Your task to perform on an android device: View the shopping cart on ebay. Add "panasonic triple a" to the cart on ebay, then select checkout. Image 0: 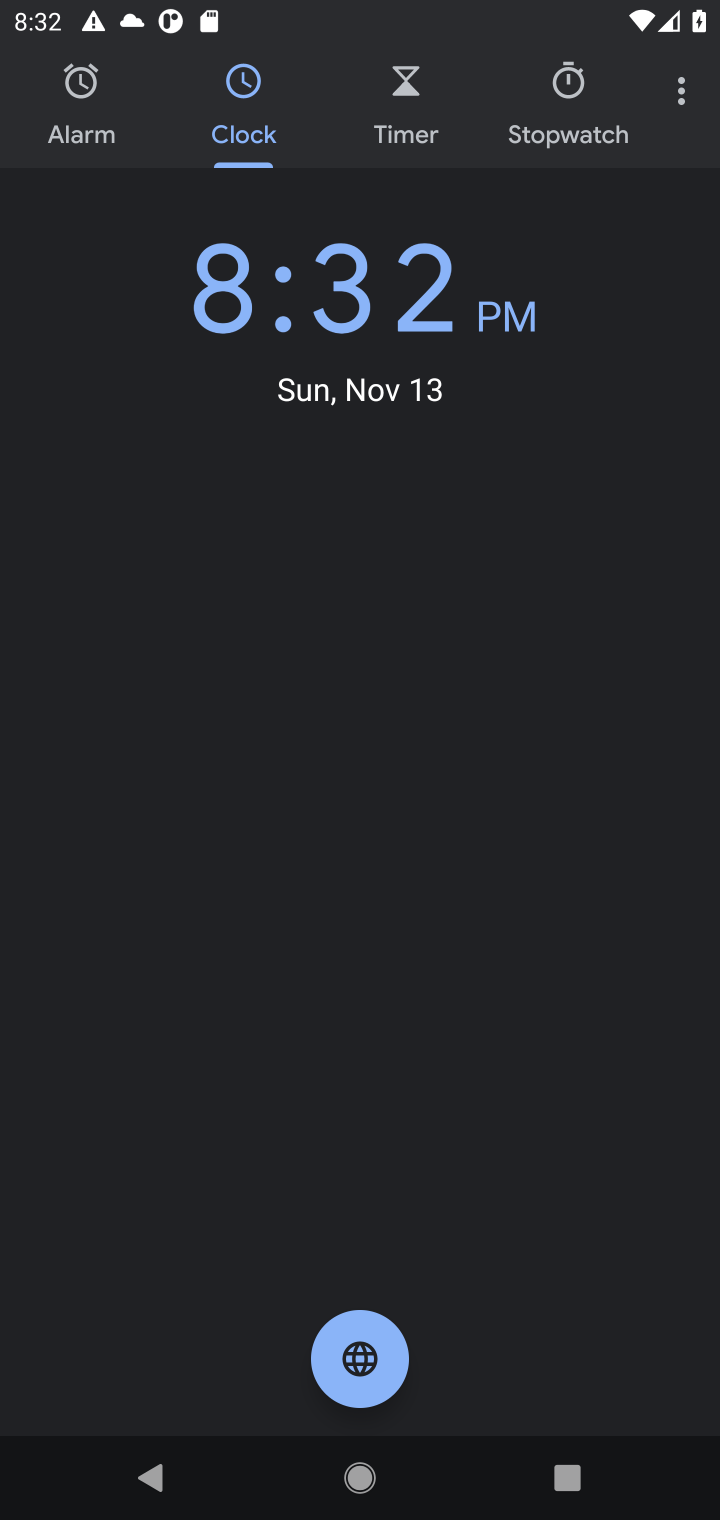
Step 0: press home button
Your task to perform on an android device: View the shopping cart on ebay. Add "panasonic triple a" to the cart on ebay, then select checkout. Image 1: 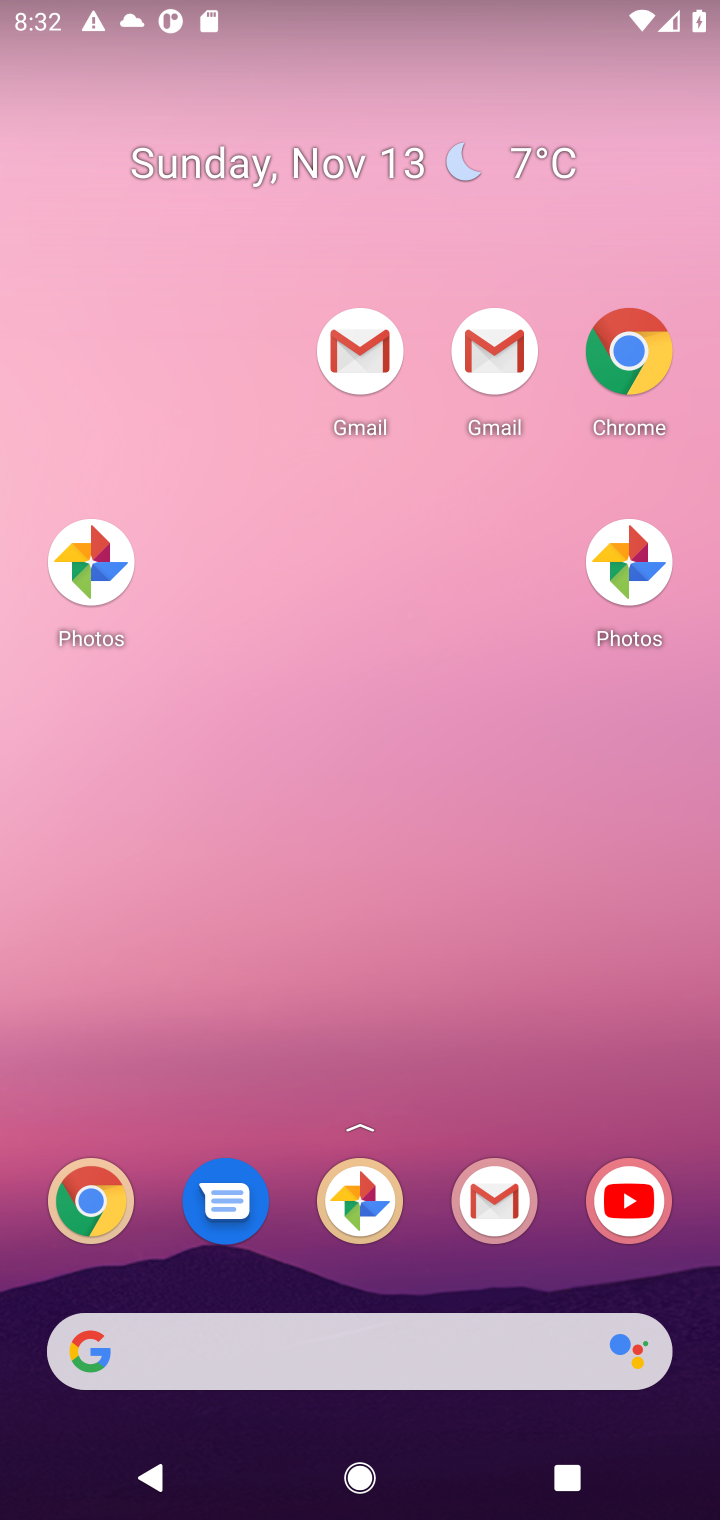
Step 1: drag from (422, 1281) to (356, 138)
Your task to perform on an android device: View the shopping cart on ebay. Add "panasonic triple a" to the cart on ebay, then select checkout. Image 2: 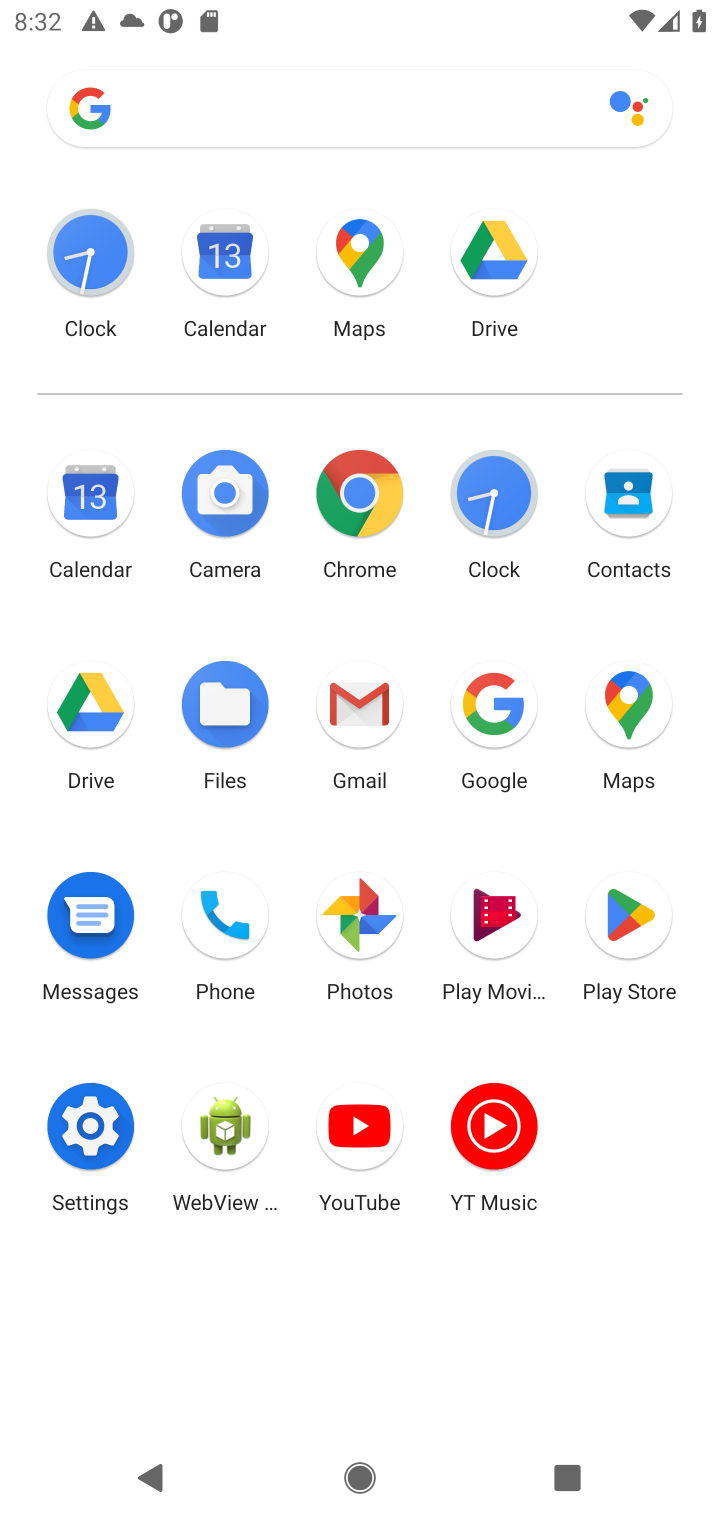
Step 2: click (366, 498)
Your task to perform on an android device: View the shopping cart on ebay. Add "panasonic triple a" to the cart on ebay, then select checkout. Image 3: 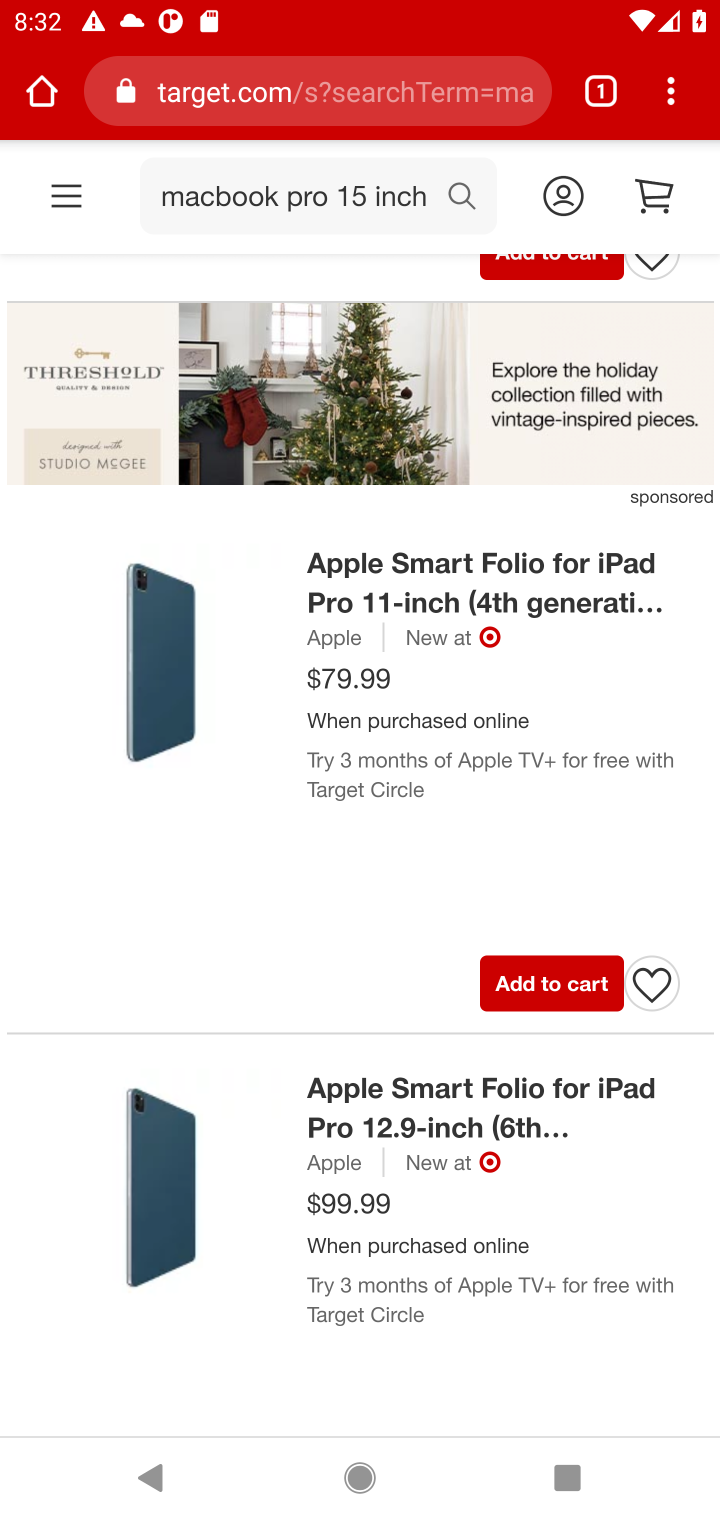
Step 3: click (417, 117)
Your task to perform on an android device: View the shopping cart on ebay. Add "panasonic triple a" to the cart on ebay, then select checkout. Image 4: 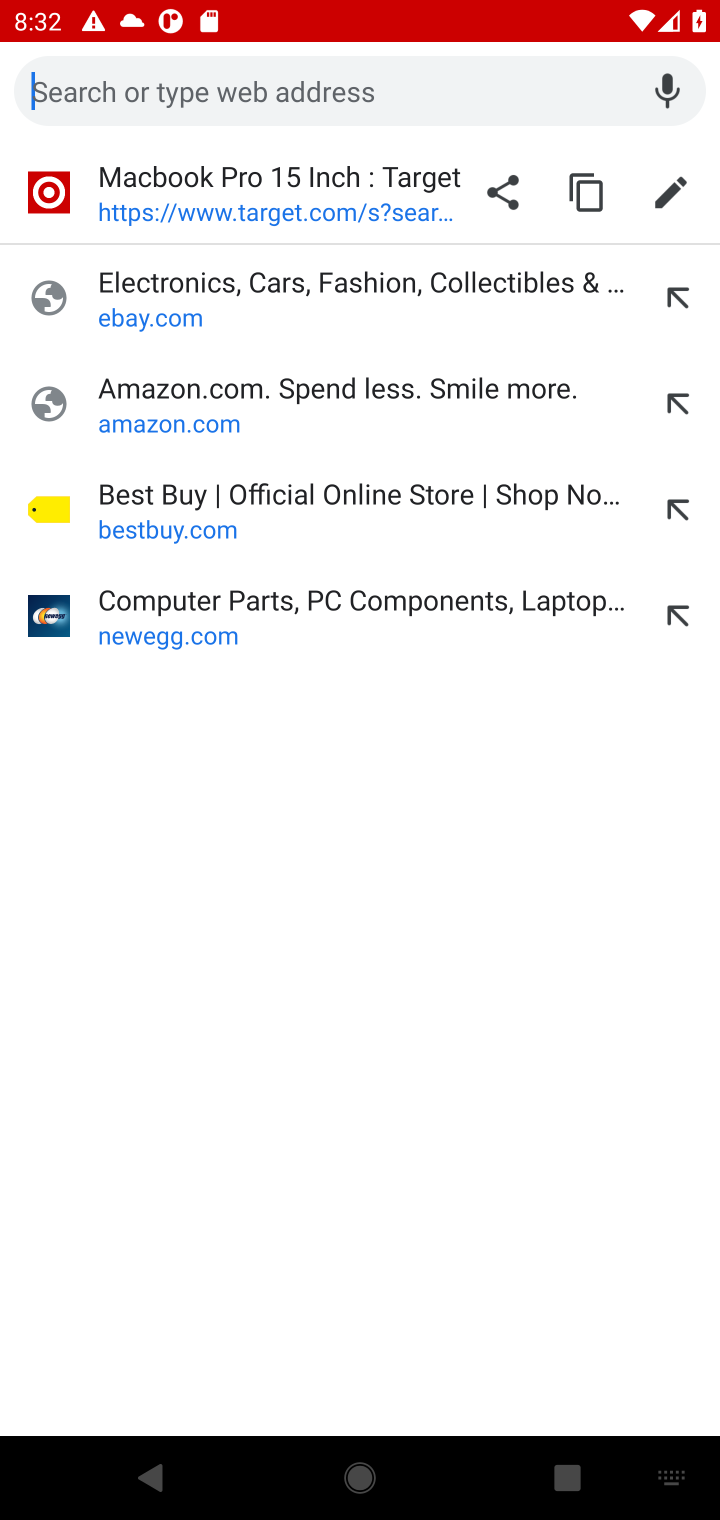
Step 4: type "ebay.com"
Your task to perform on an android device: View the shopping cart on ebay. Add "panasonic triple a" to the cart on ebay, then select checkout. Image 5: 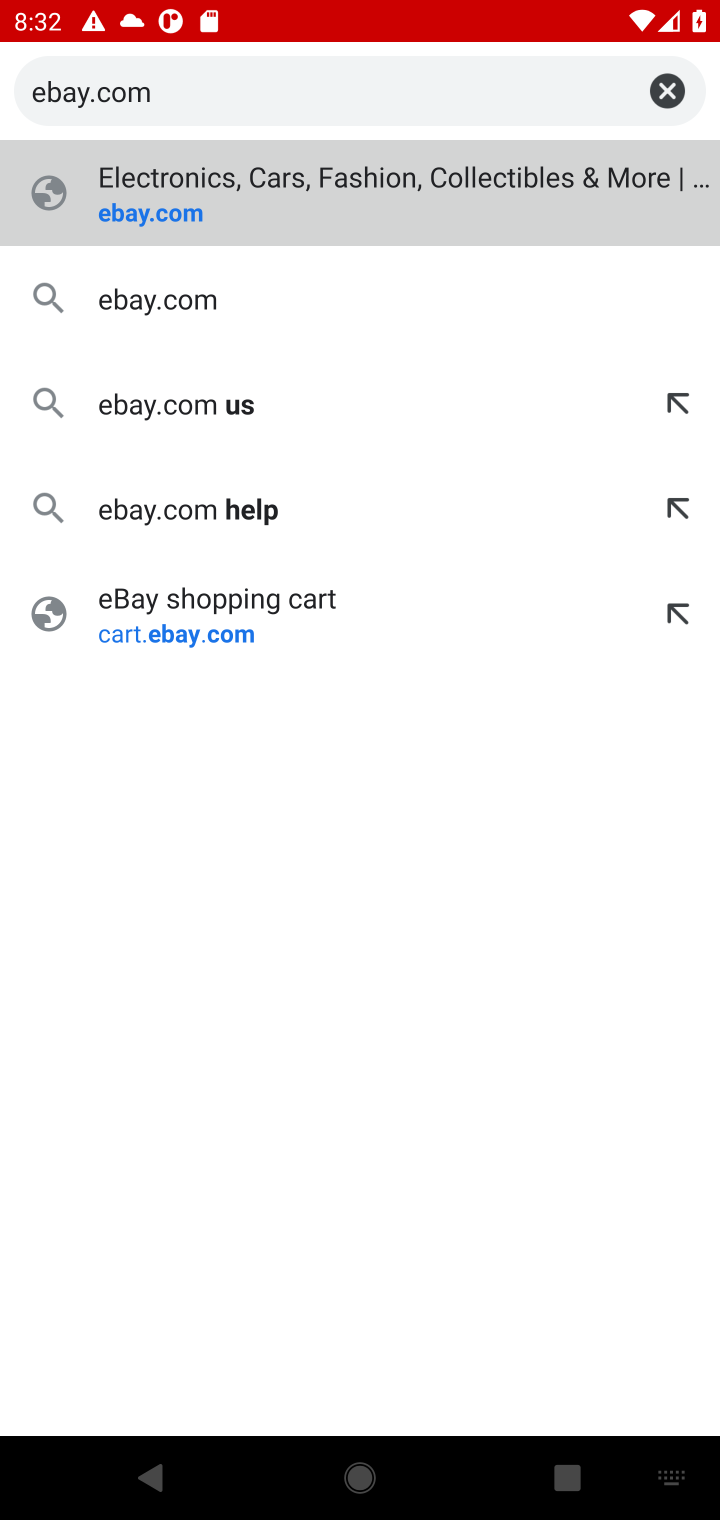
Step 5: press enter
Your task to perform on an android device: View the shopping cart on ebay. Add "panasonic triple a" to the cart on ebay, then select checkout. Image 6: 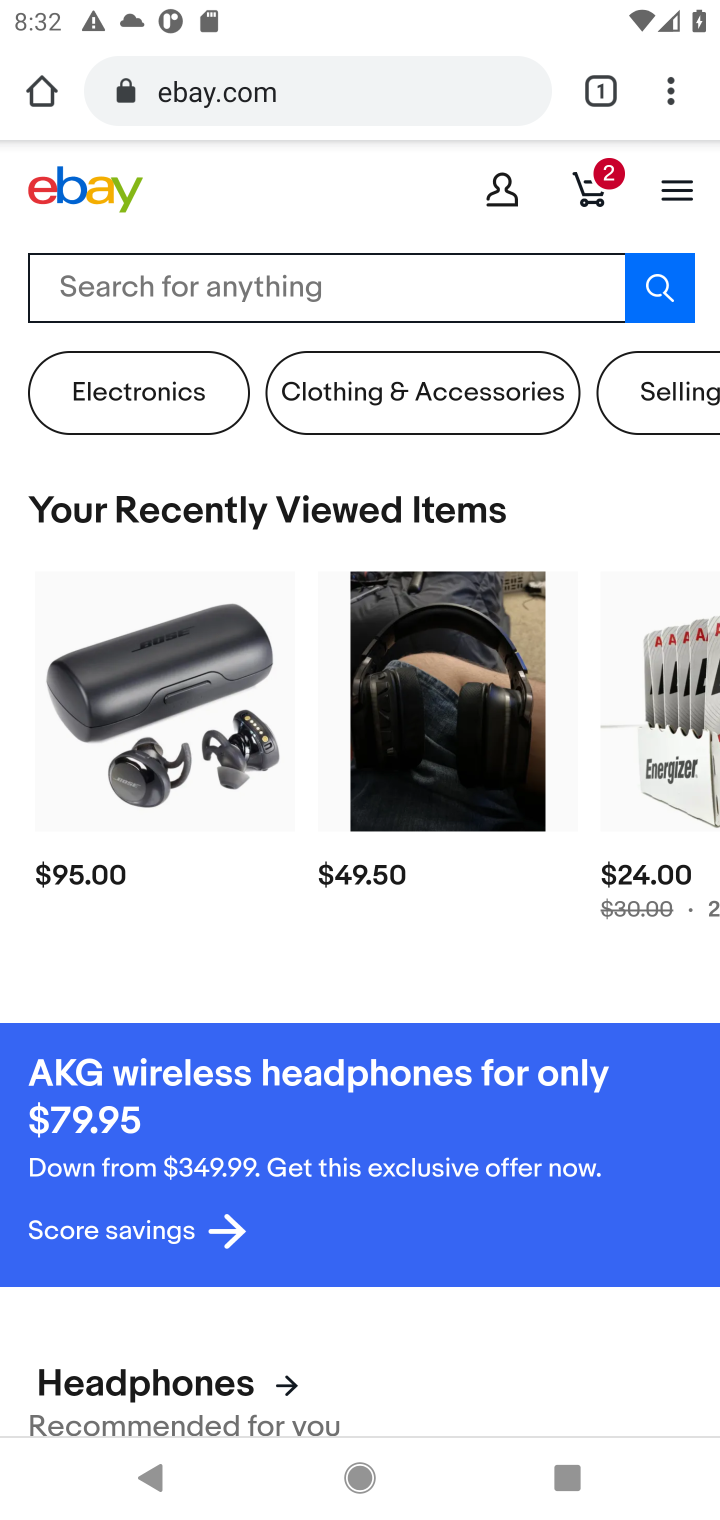
Step 6: click (591, 190)
Your task to perform on an android device: View the shopping cart on ebay. Add "panasonic triple a" to the cart on ebay, then select checkout. Image 7: 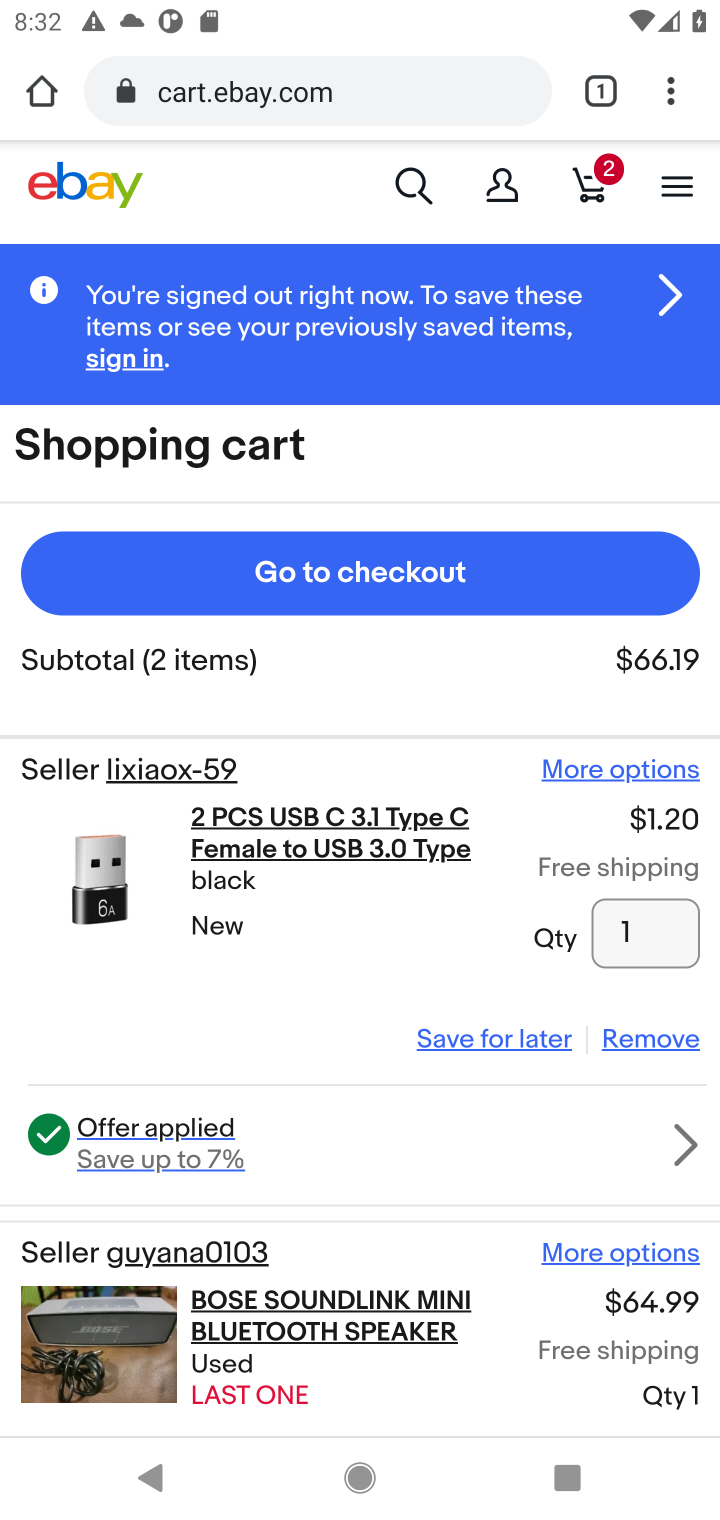
Step 7: click (402, 182)
Your task to perform on an android device: View the shopping cart on ebay. Add "panasonic triple a" to the cart on ebay, then select checkout. Image 8: 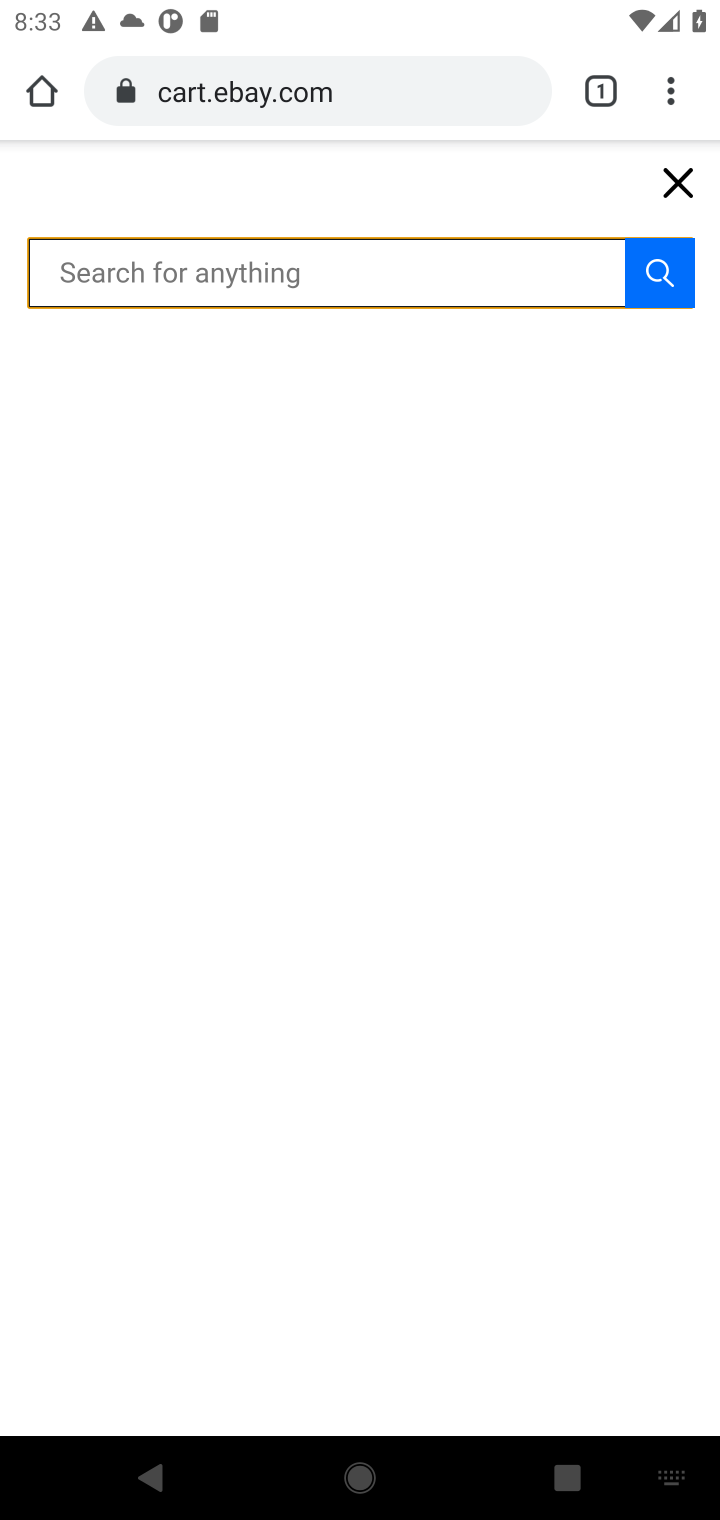
Step 8: type "panasonic triple a"
Your task to perform on an android device: View the shopping cart on ebay. Add "panasonic triple a" to the cart on ebay, then select checkout. Image 9: 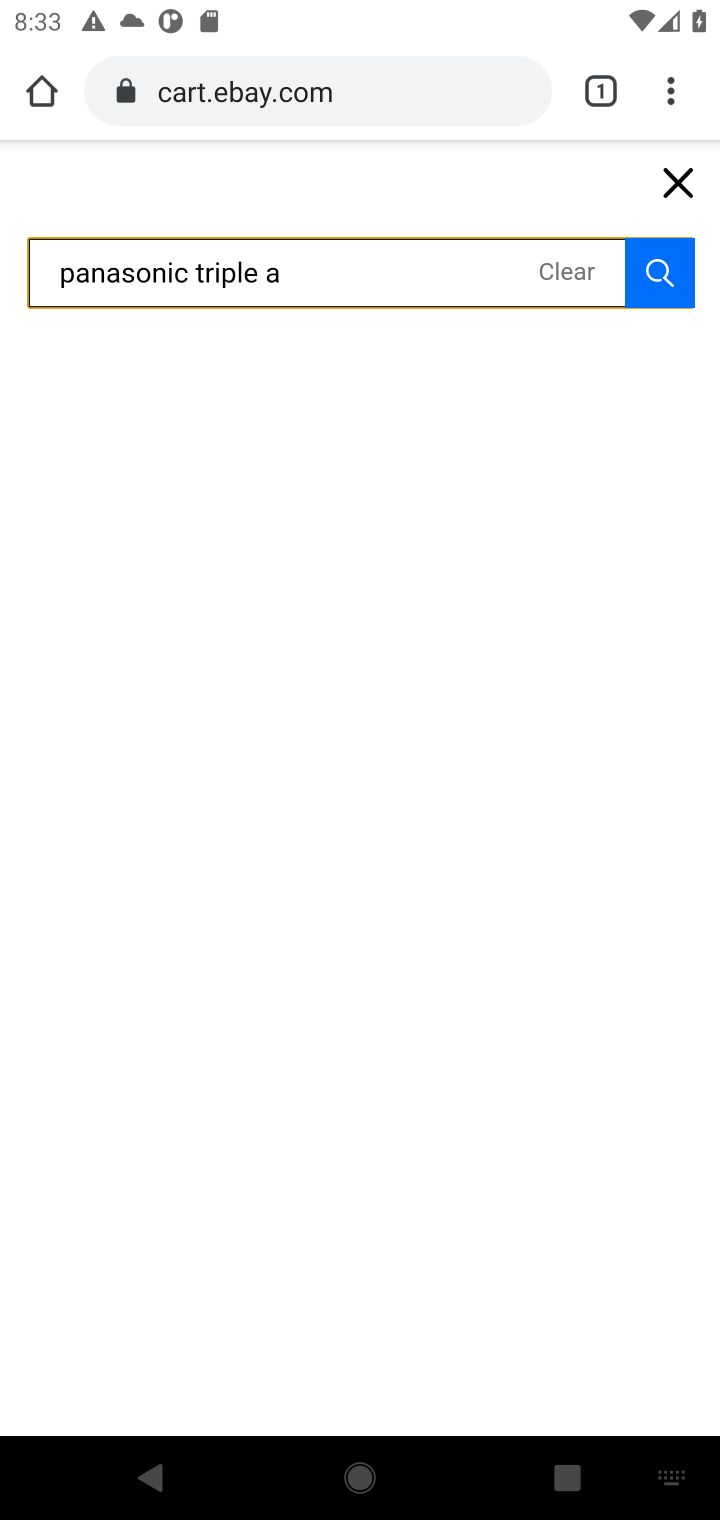
Step 9: press enter
Your task to perform on an android device: View the shopping cart on ebay. Add "panasonic triple a" to the cart on ebay, then select checkout. Image 10: 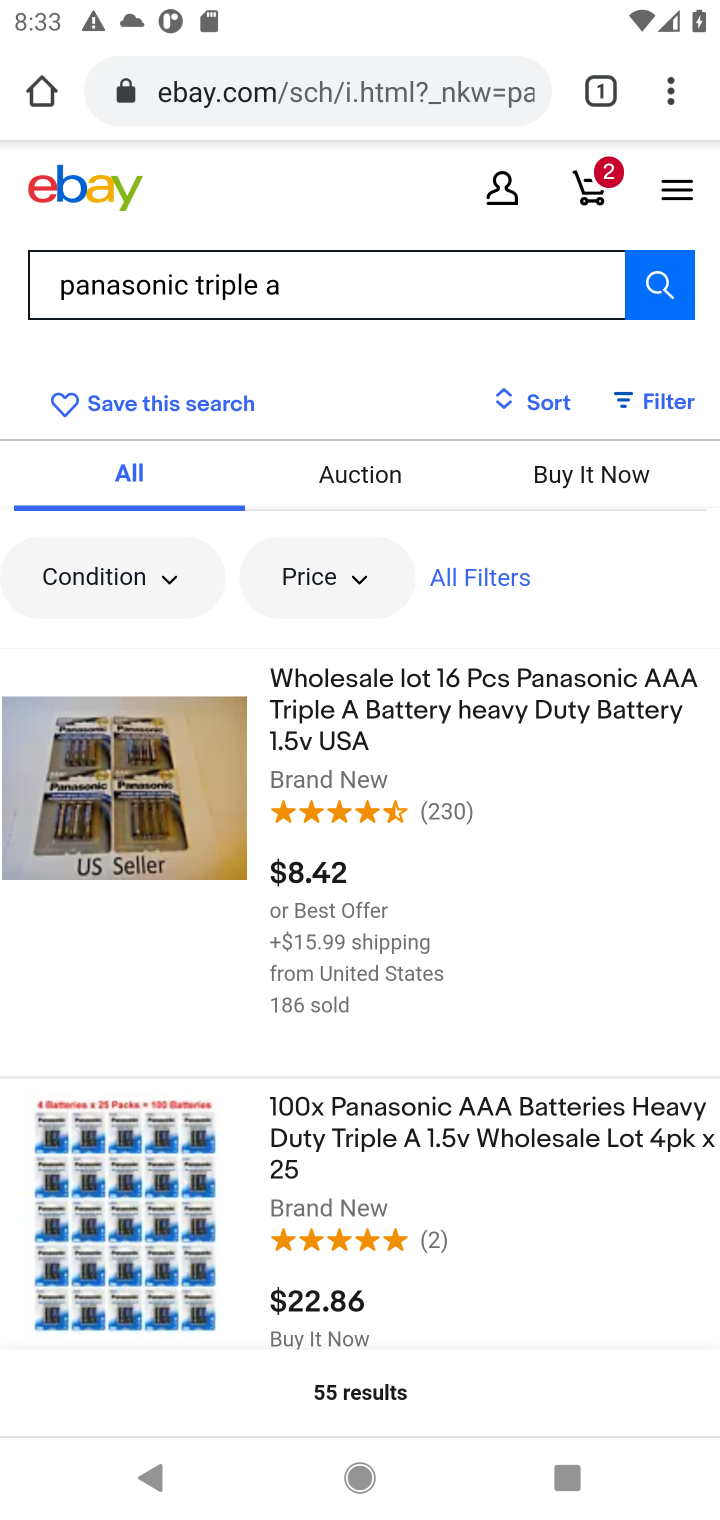
Step 10: click (179, 769)
Your task to perform on an android device: View the shopping cart on ebay. Add "panasonic triple a" to the cart on ebay, then select checkout. Image 11: 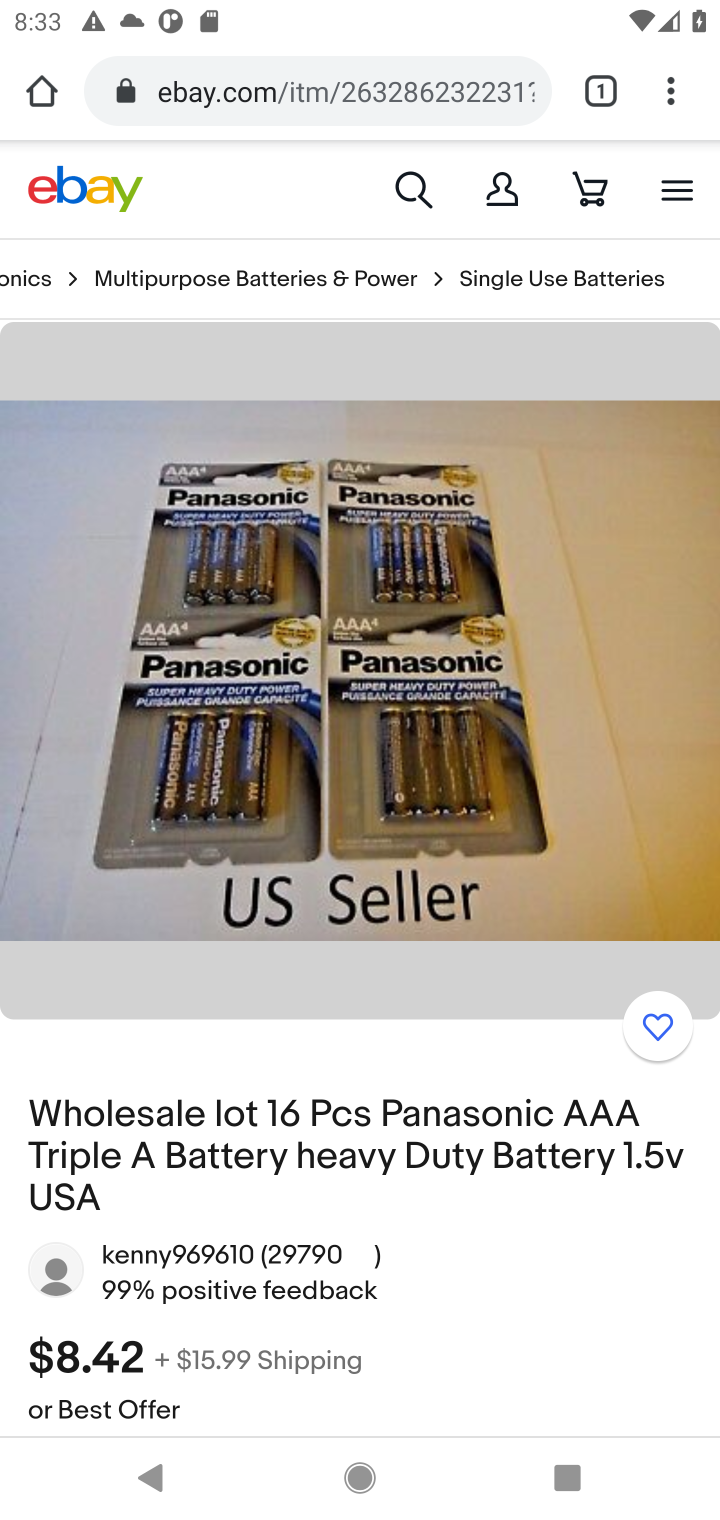
Step 11: drag from (394, 1237) to (457, 431)
Your task to perform on an android device: View the shopping cart on ebay. Add "panasonic triple a" to the cart on ebay, then select checkout. Image 12: 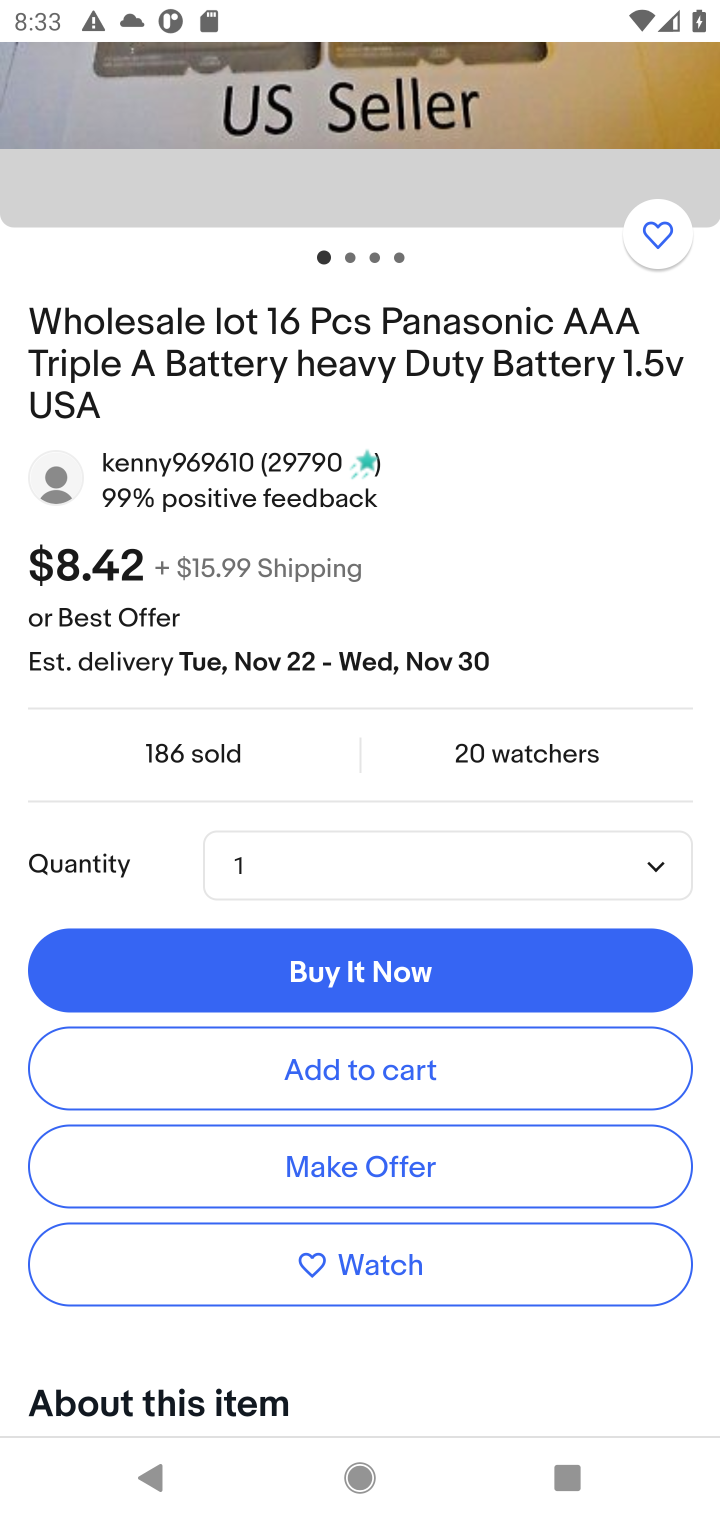
Step 12: click (402, 1056)
Your task to perform on an android device: View the shopping cart on ebay. Add "panasonic triple a" to the cart on ebay, then select checkout. Image 13: 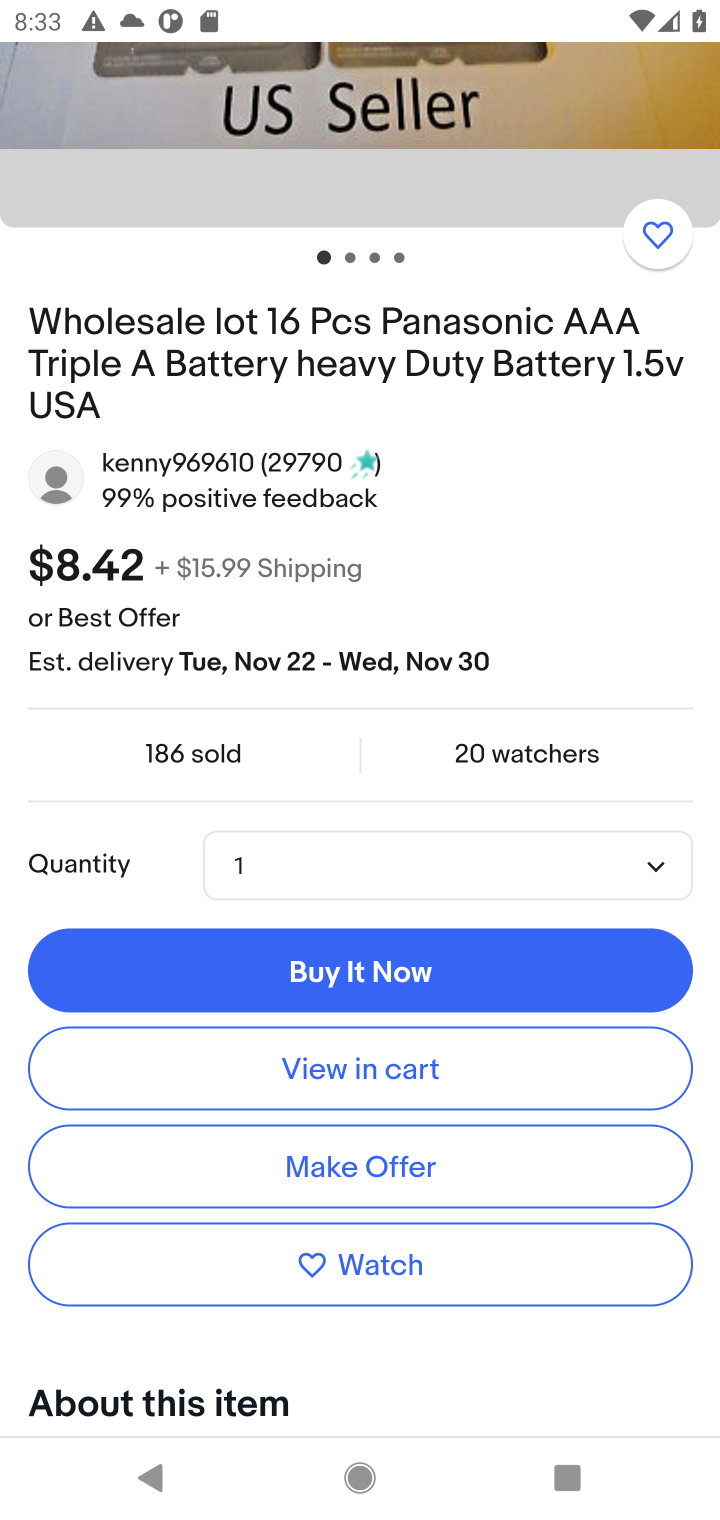
Step 13: click (402, 1056)
Your task to perform on an android device: View the shopping cart on ebay. Add "panasonic triple a" to the cart on ebay, then select checkout. Image 14: 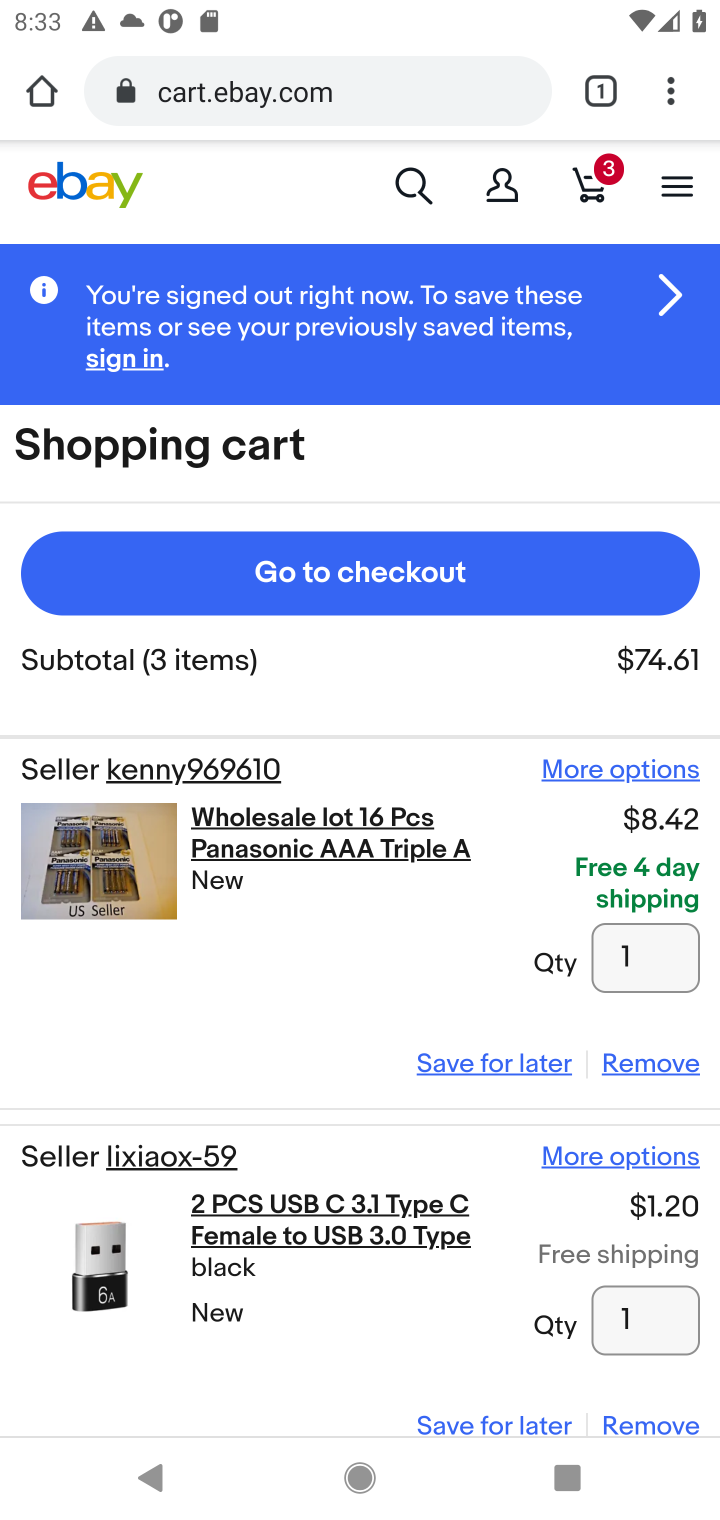
Step 14: drag from (436, 1152) to (444, 1044)
Your task to perform on an android device: View the shopping cart on ebay. Add "panasonic triple a" to the cart on ebay, then select checkout. Image 15: 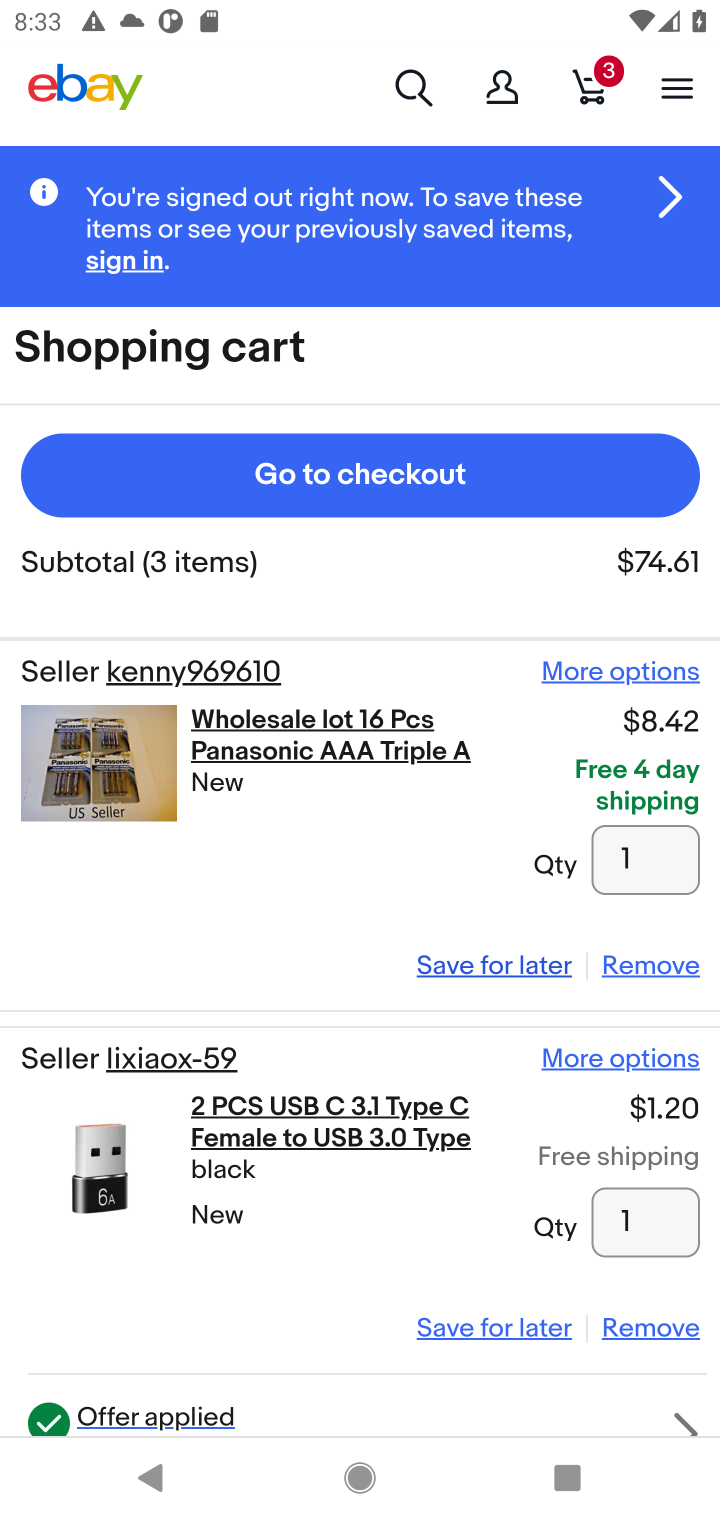
Step 15: click (435, 470)
Your task to perform on an android device: View the shopping cart on ebay. Add "panasonic triple a" to the cart on ebay, then select checkout. Image 16: 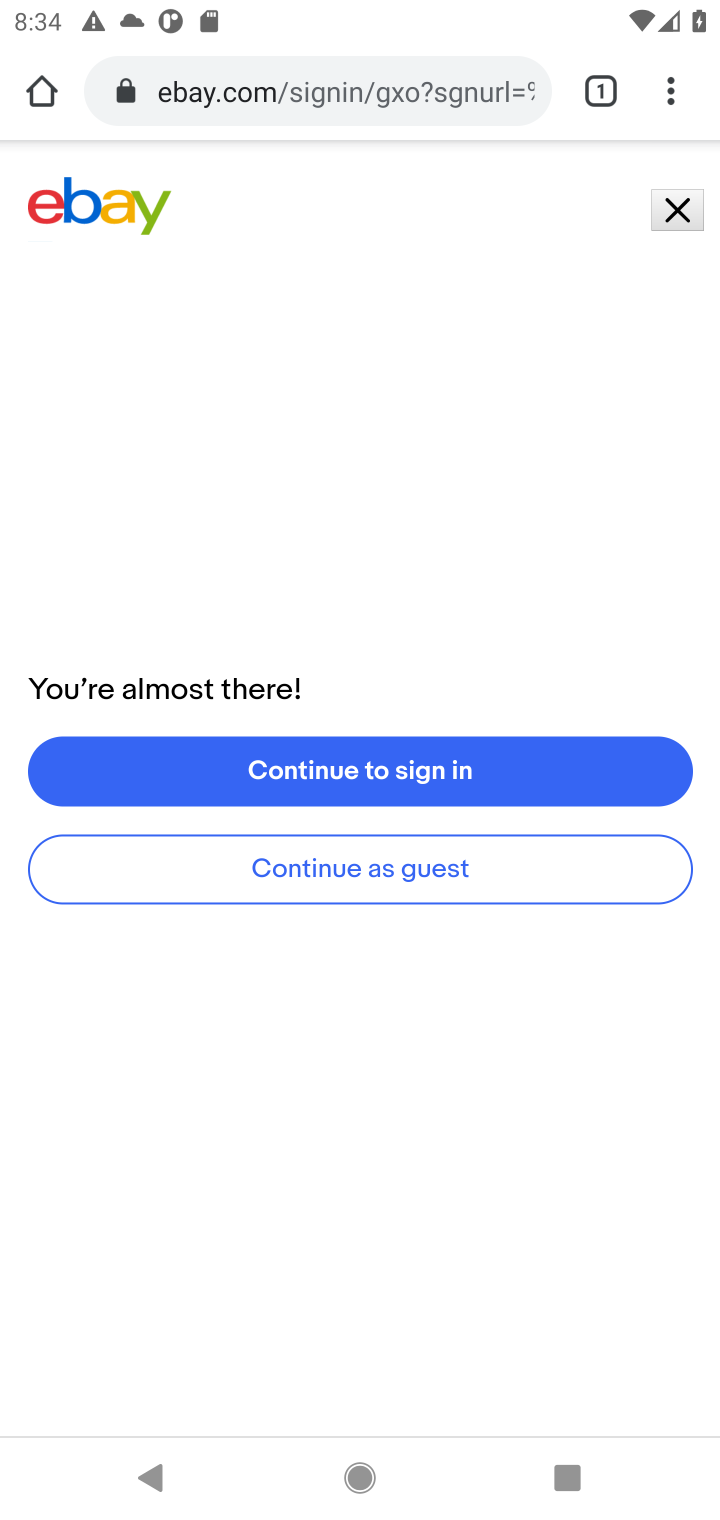
Step 16: task complete